Your task to perform on an android device: Open Google Maps and go to "Timeline" Image 0: 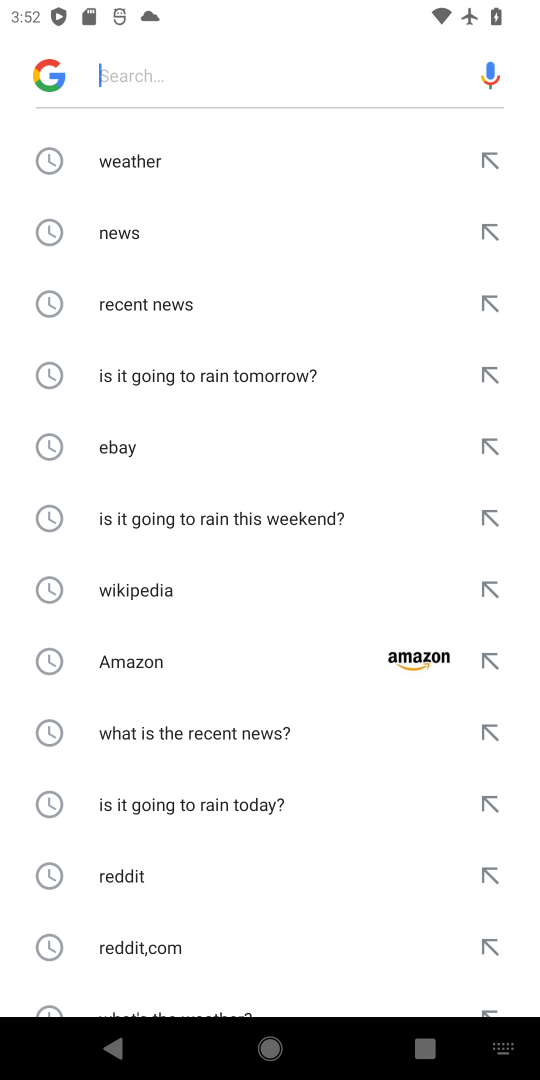
Step 0: press home button
Your task to perform on an android device: Open Google Maps and go to "Timeline" Image 1: 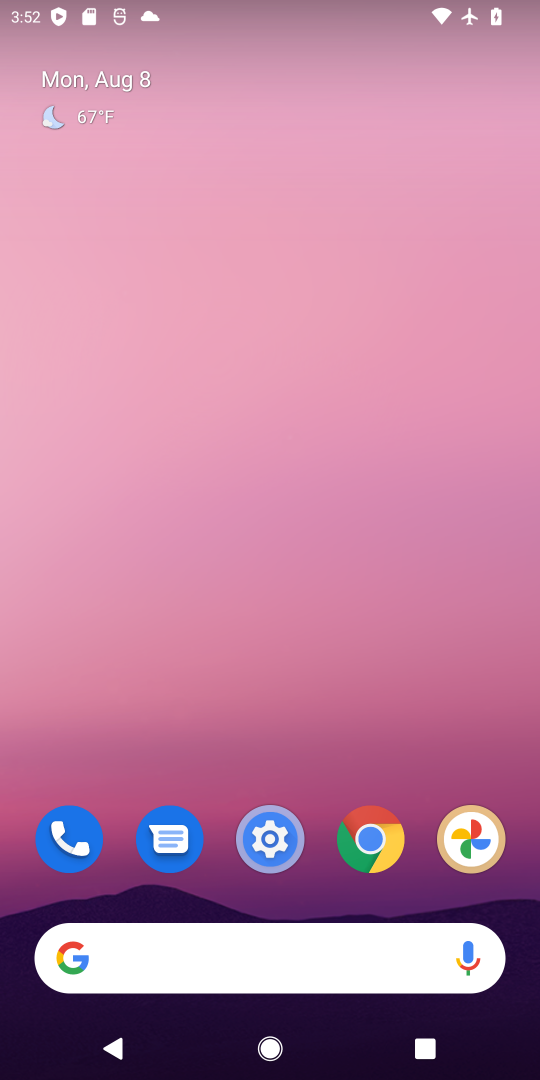
Step 1: drag from (416, 642) to (431, 189)
Your task to perform on an android device: Open Google Maps and go to "Timeline" Image 2: 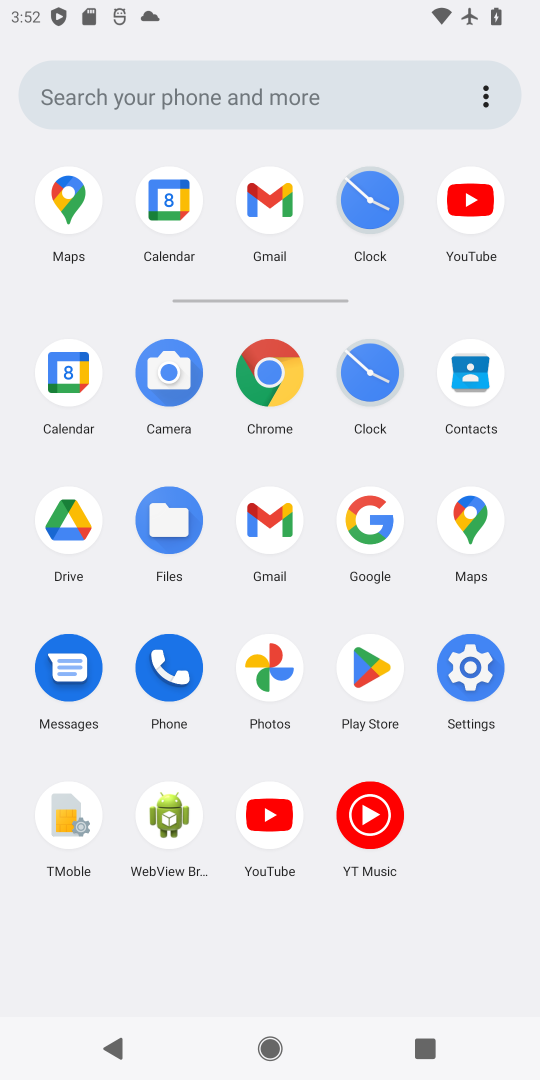
Step 2: click (466, 527)
Your task to perform on an android device: Open Google Maps and go to "Timeline" Image 3: 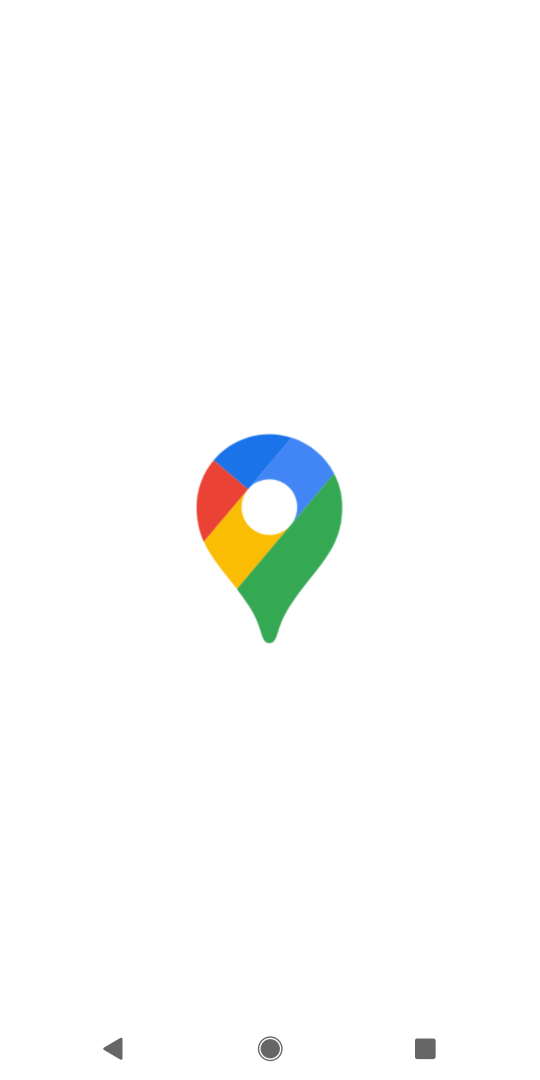
Step 3: task complete